Your task to perform on an android device: Open calendar and show me the fourth week of next month Image 0: 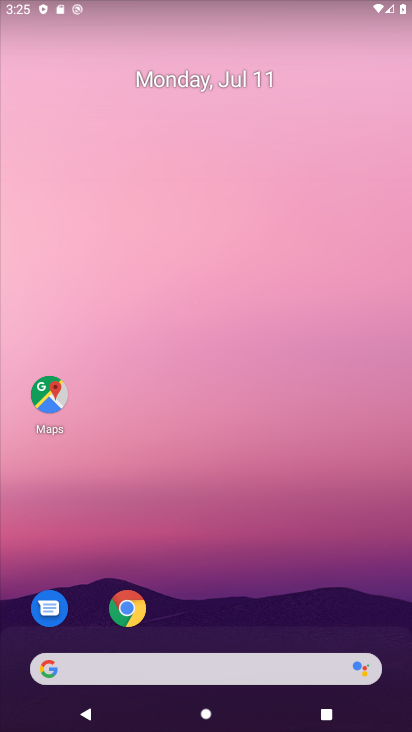
Step 0: drag from (251, 620) to (184, 16)
Your task to perform on an android device: Open calendar and show me the fourth week of next month Image 1: 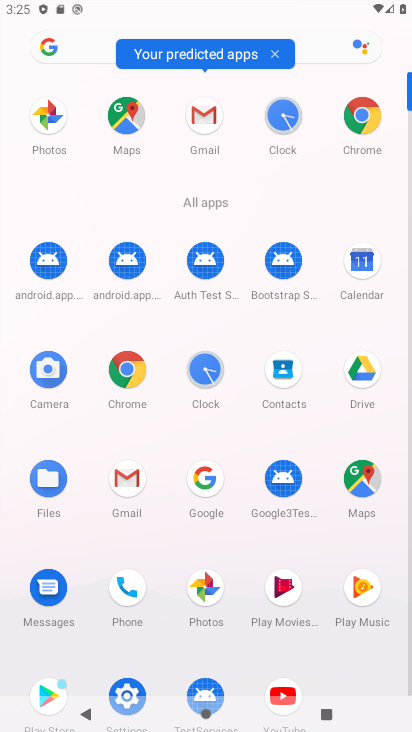
Step 1: click (354, 275)
Your task to perform on an android device: Open calendar and show me the fourth week of next month Image 2: 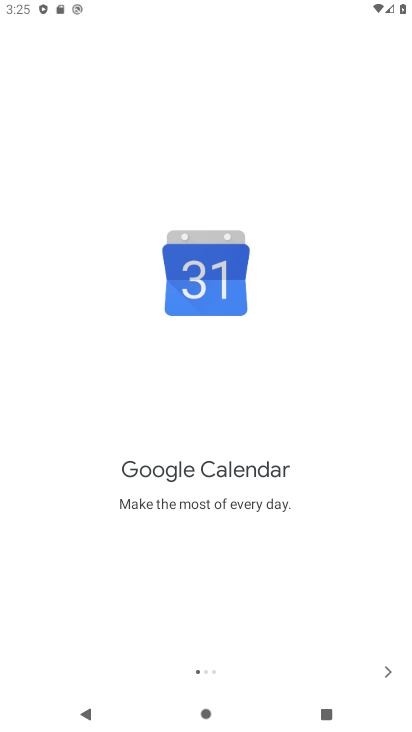
Step 2: click (383, 669)
Your task to perform on an android device: Open calendar and show me the fourth week of next month Image 3: 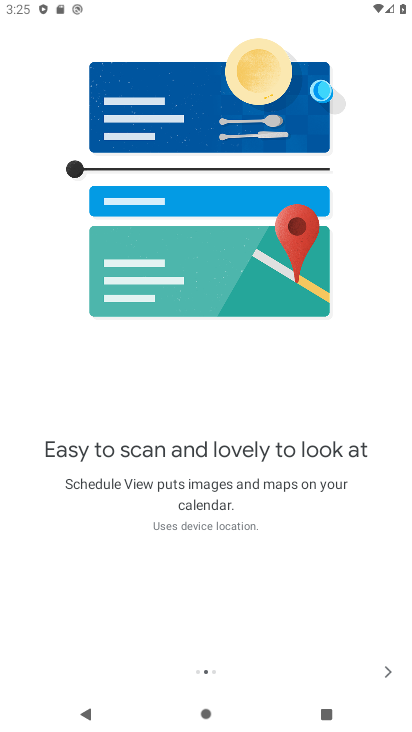
Step 3: click (383, 669)
Your task to perform on an android device: Open calendar and show me the fourth week of next month Image 4: 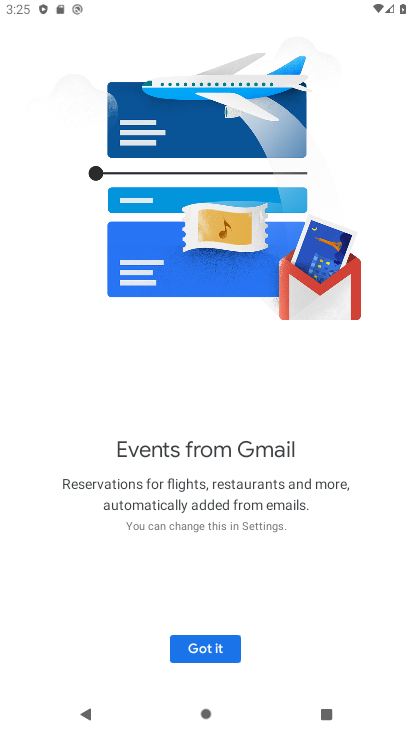
Step 4: click (224, 648)
Your task to perform on an android device: Open calendar and show me the fourth week of next month Image 5: 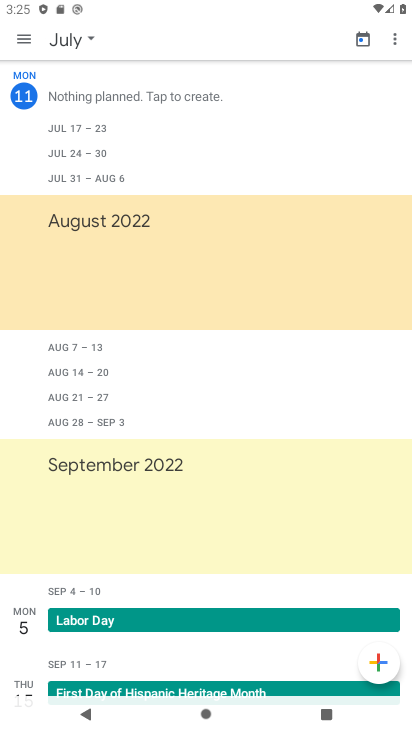
Step 5: click (18, 37)
Your task to perform on an android device: Open calendar and show me the fourth week of next month Image 6: 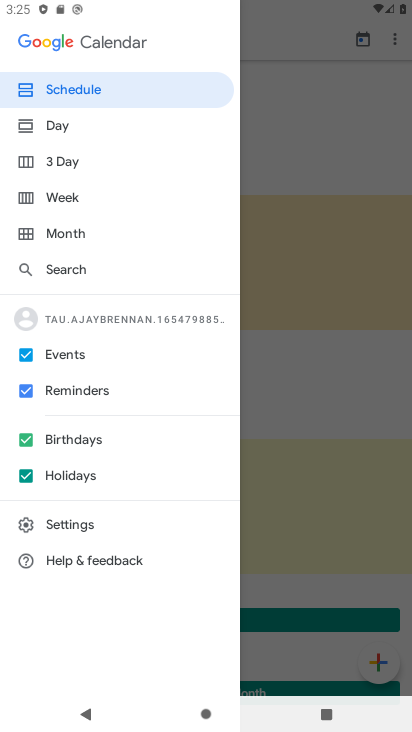
Step 6: click (36, 205)
Your task to perform on an android device: Open calendar and show me the fourth week of next month Image 7: 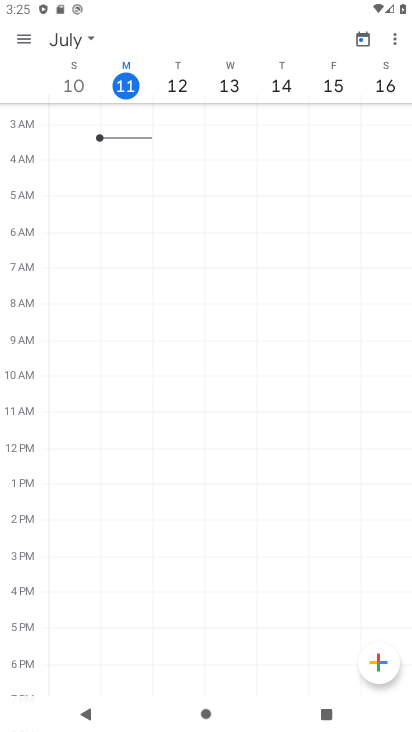
Step 7: task complete